Your task to perform on an android device: add a contact in the contacts app Image 0: 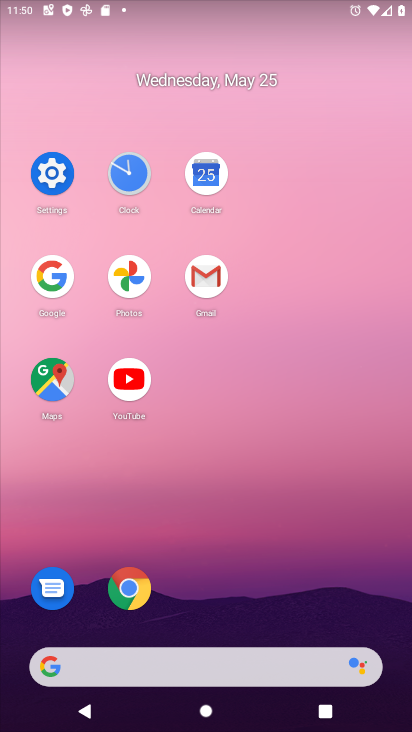
Step 0: drag from (243, 589) to (223, 218)
Your task to perform on an android device: add a contact in the contacts app Image 1: 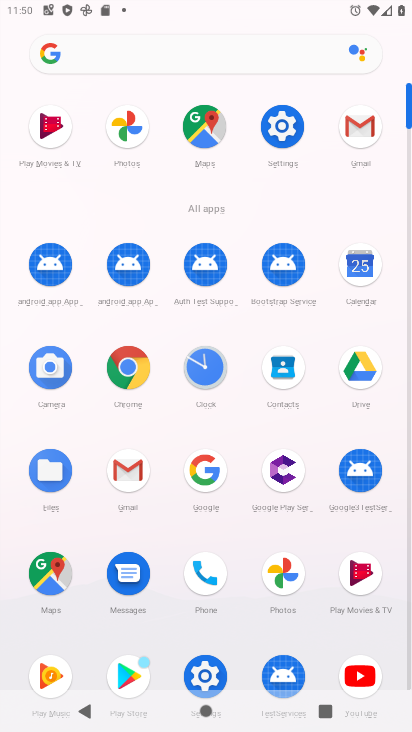
Step 1: drag from (285, 368) to (240, 362)
Your task to perform on an android device: add a contact in the contacts app Image 2: 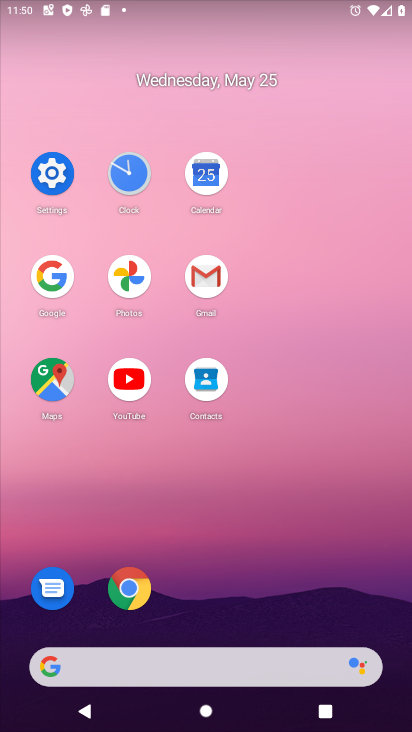
Step 2: click (214, 381)
Your task to perform on an android device: add a contact in the contacts app Image 3: 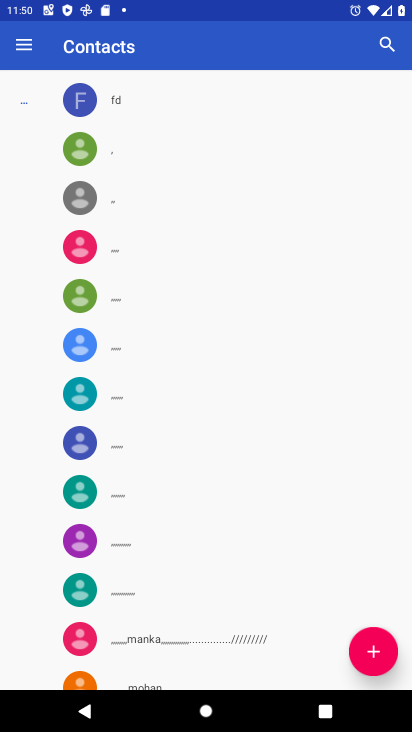
Step 3: click (376, 674)
Your task to perform on an android device: add a contact in the contacts app Image 4: 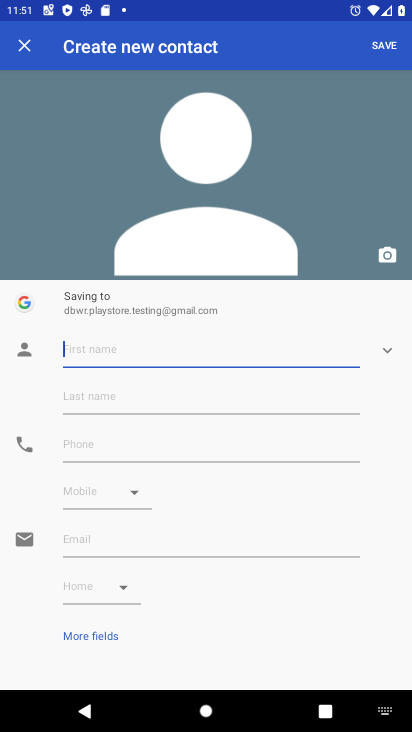
Step 4: type "bbc"
Your task to perform on an android device: add a contact in the contacts app Image 5: 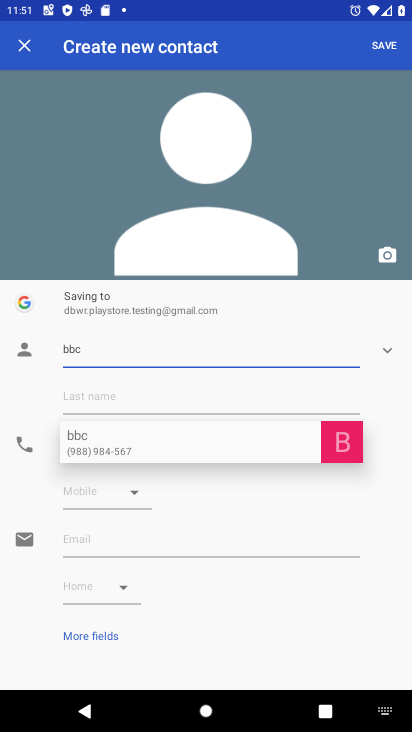
Step 5: click (111, 400)
Your task to perform on an android device: add a contact in the contacts app Image 6: 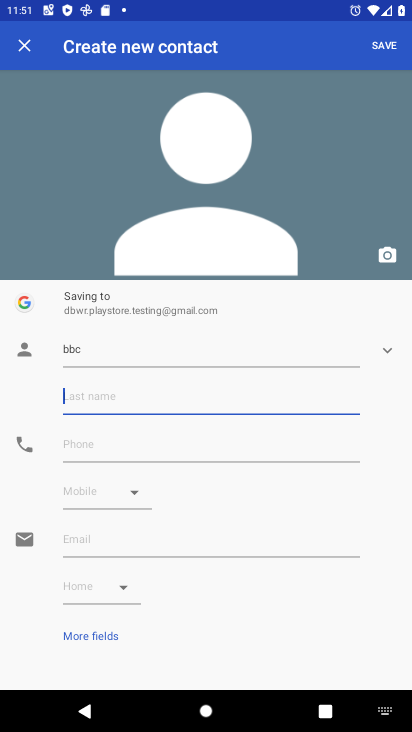
Step 6: type "pop"
Your task to perform on an android device: add a contact in the contacts app Image 7: 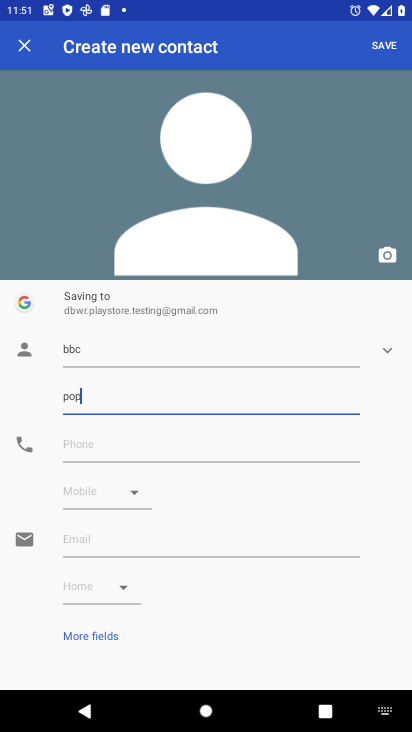
Step 7: click (89, 436)
Your task to perform on an android device: add a contact in the contacts app Image 8: 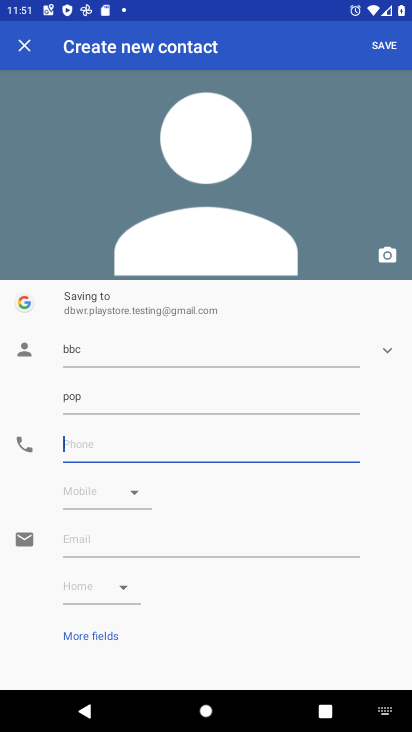
Step 8: type "99097765432"
Your task to perform on an android device: add a contact in the contacts app Image 9: 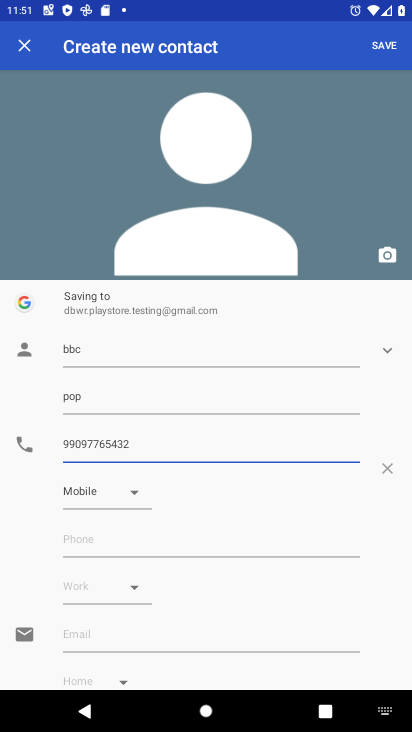
Step 9: click (377, 43)
Your task to perform on an android device: add a contact in the contacts app Image 10: 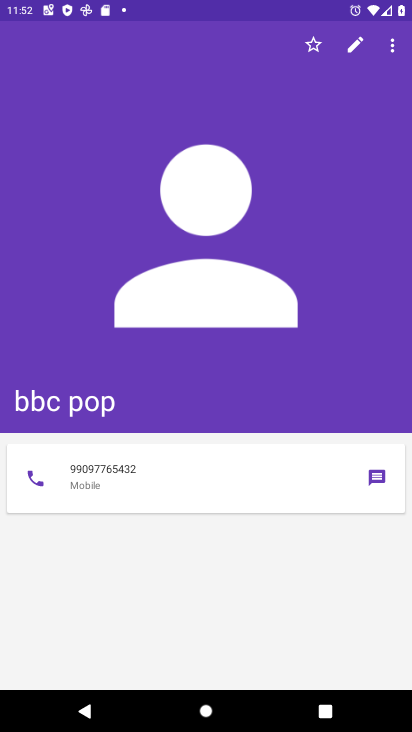
Step 10: task complete